Your task to perform on an android device: What's on my calendar tomorrow? Image 0: 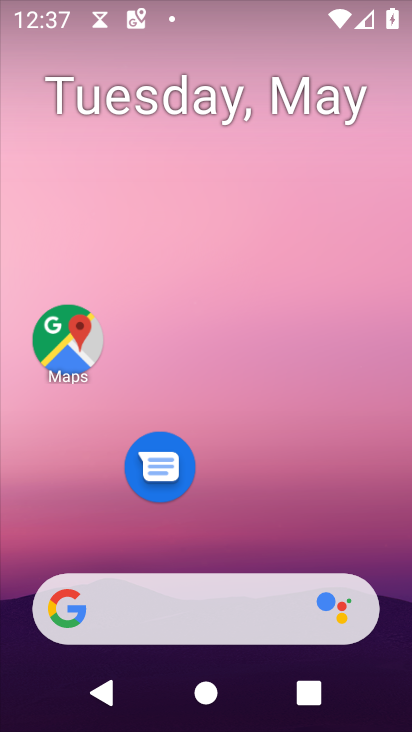
Step 0: click (206, 102)
Your task to perform on an android device: What's on my calendar tomorrow? Image 1: 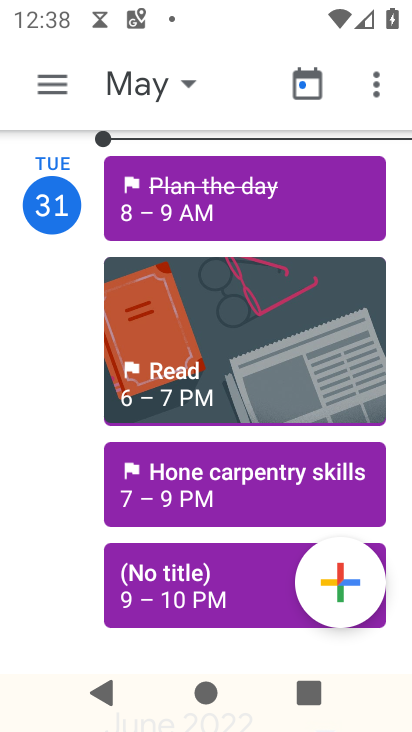
Step 1: task complete